Your task to perform on an android device: Open ESPN.com Image 0: 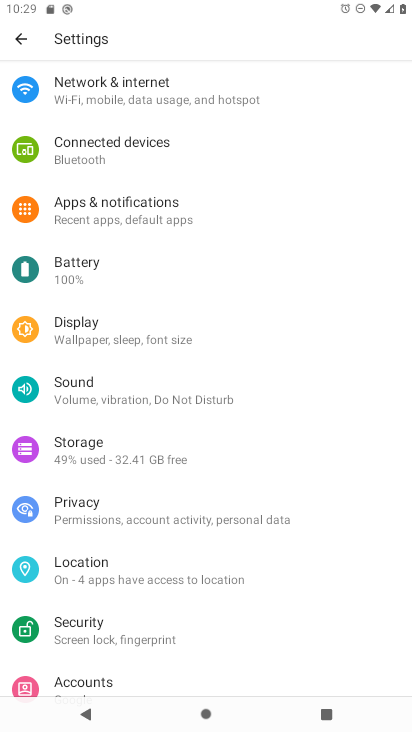
Step 0: press home button
Your task to perform on an android device: Open ESPN.com Image 1: 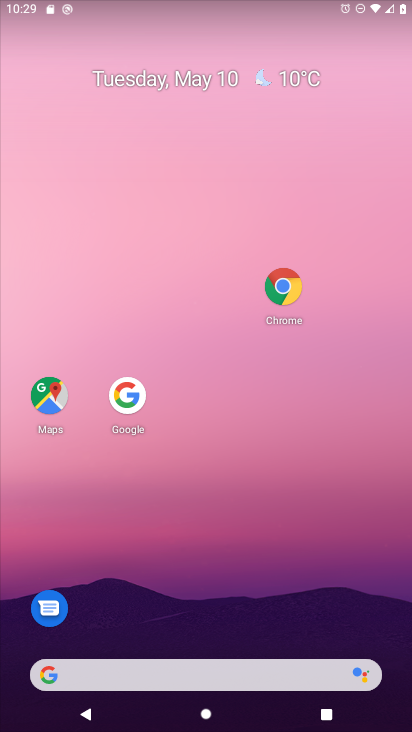
Step 1: drag from (142, 676) to (261, 272)
Your task to perform on an android device: Open ESPN.com Image 2: 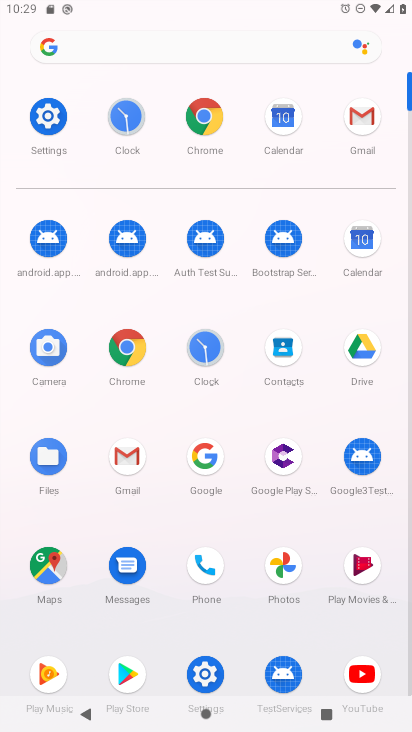
Step 2: click (204, 129)
Your task to perform on an android device: Open ESPN.com Image 3: 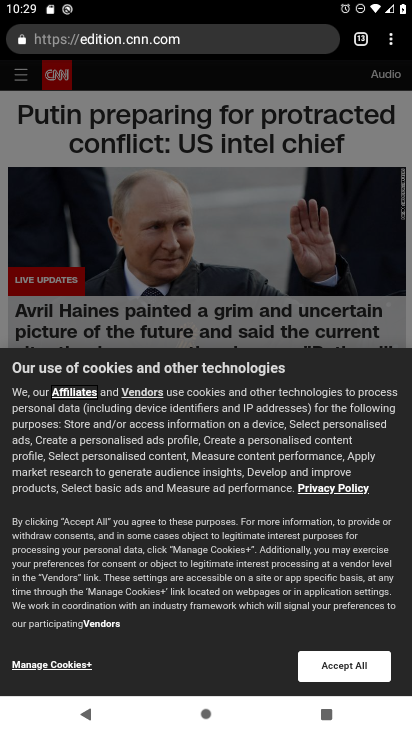
Step 3: drag from (391, 42) to (310, 77)
Your task to perform on an android device: Open ESPN.com Image 4: 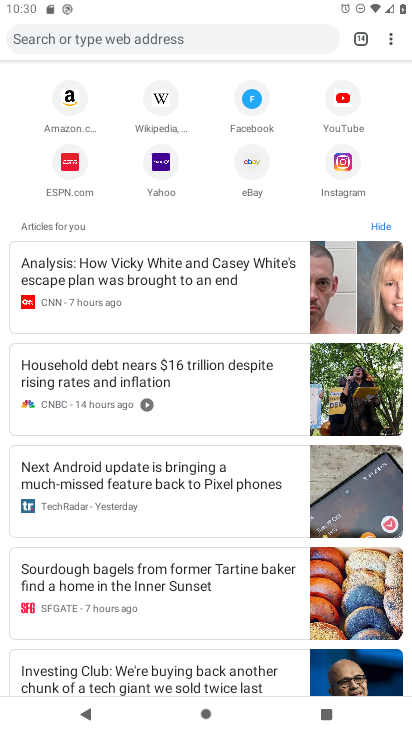
Step 4: click (67, 171)
Your task to perform on an android device: Open ESPN.com Image 5: 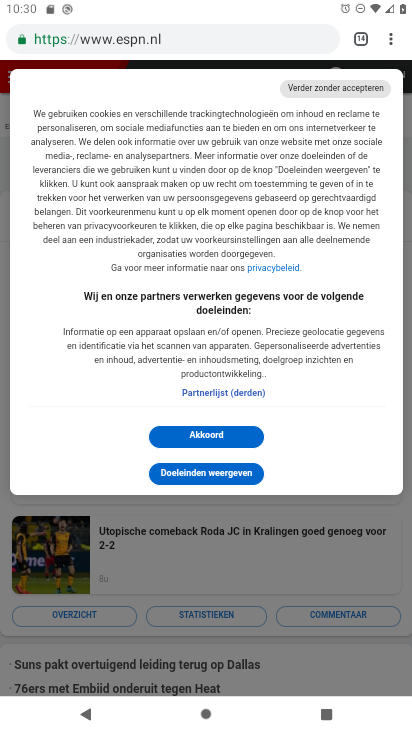
Step 5: task complete